Your task to perform on an android device: turn off location history Image 0: 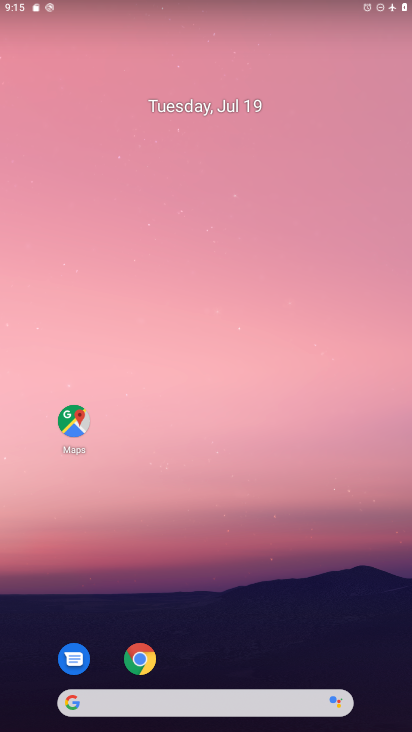
Step 0: drag from (236, 592) to (230, 234)
Your task to perform on an android device: turn off location history Image 1: 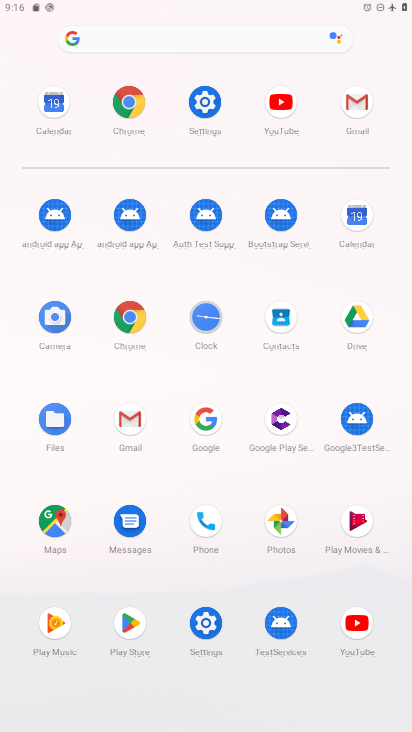
Step 1: click (202, 106)
Your task to perform on an android device: turn off location history Image 2: 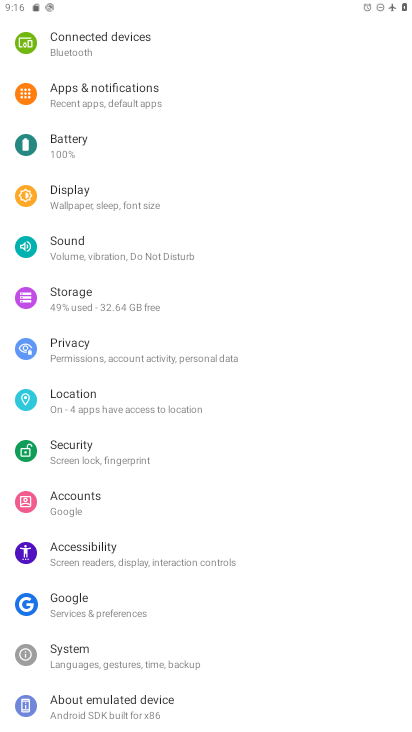
Step 2: click (84, 400)
Your task to perform on an android device: turn off location history Image 3: 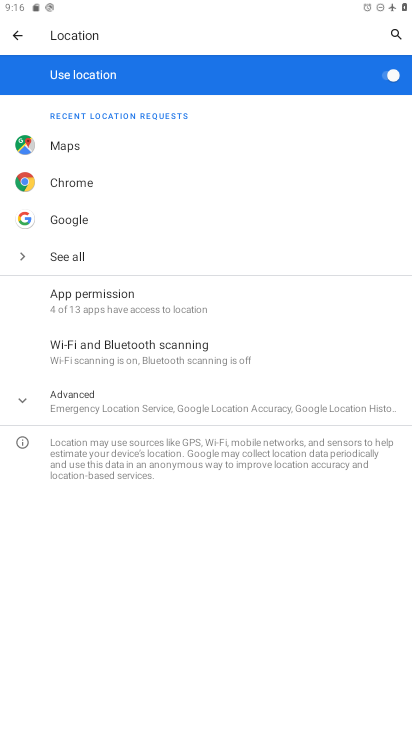
Step 3: click (163, 405)
Your task to perform on an android device: turn off location history Image 4: 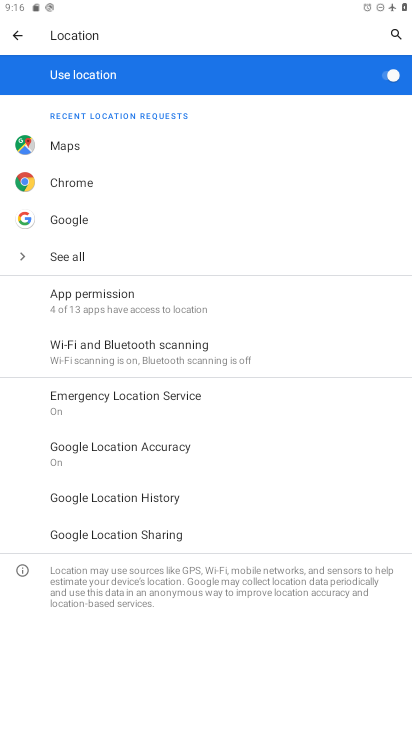
Step 4: click (135, 488)
Your task to perform on an android device: turn off location history Image 5: 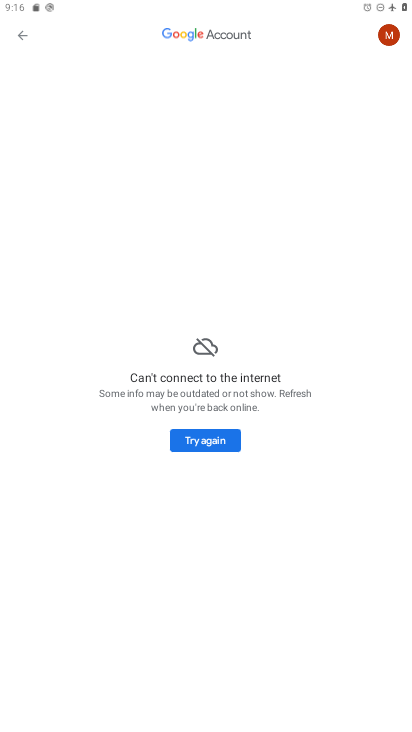
Step 5: task complete